Your task to perform on an android device: Set the phone to "Do not disturb". Image 0: 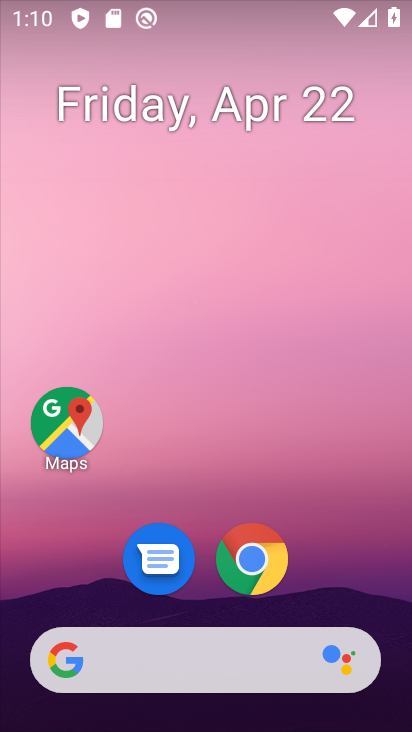
Step 0: drag from (361, 582) to (217, 40)
Your task to perform on an android device: Set the phone to "Do not disturb". Image 1: 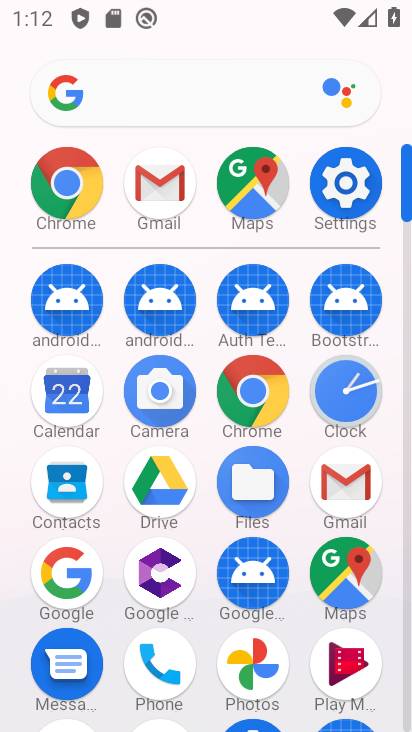
Step 1: drag from (208, 1) to (265, 509)
Your task to perform on an android device: Set the phone to "Do not disturb". Image 2: 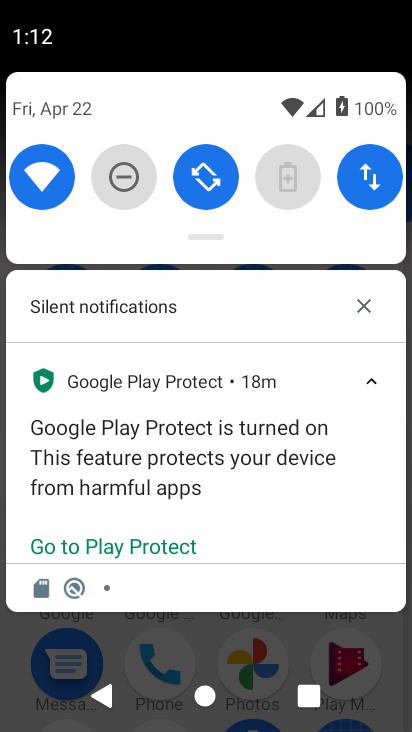
Step 2: click (123, 162)
Your task to perform on an android device: Set the phone to "Do not disturb". Image 3: 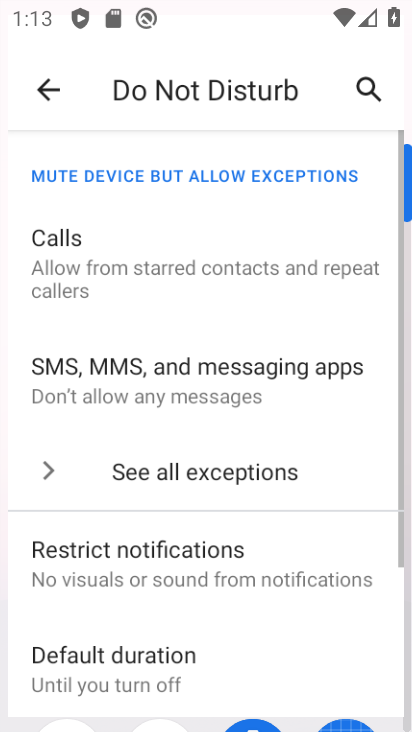
Step 3: task complete